Your task to perform on an android device: Open the web browser Image 0: 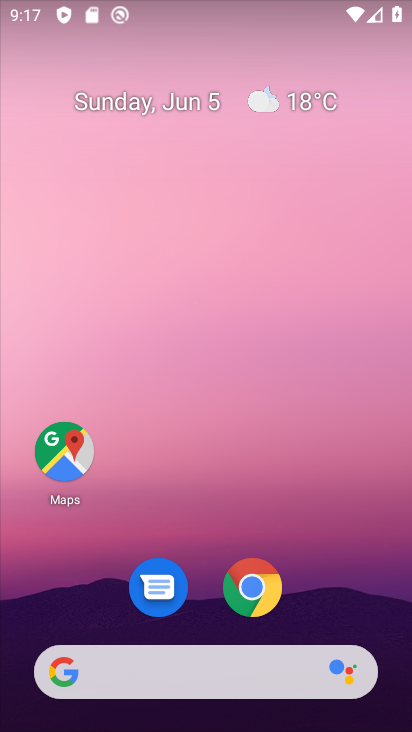
Step 0: drag from (65, 615) to (182, 104)
Your task to perform on an android device: Open the web browser Image 1: 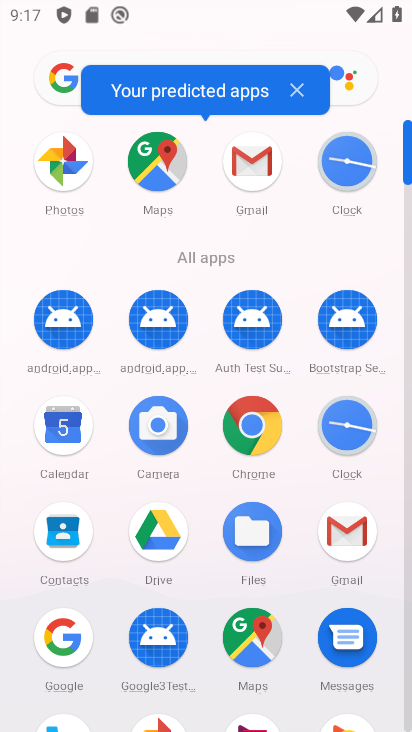
Step 1: click (56, 655)
Your task to perform on an android device: Open the web browser Image 2: 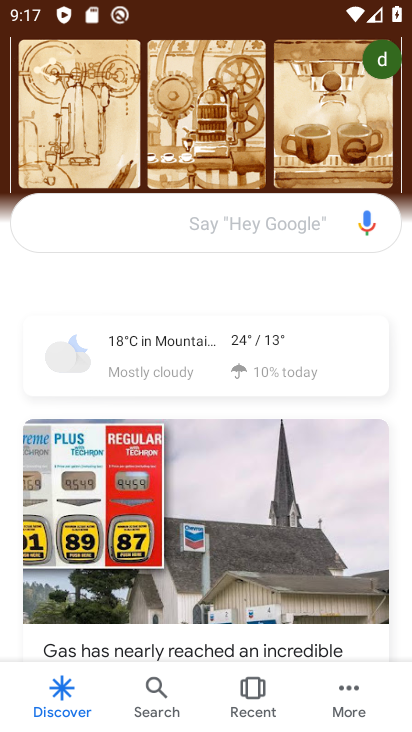
Step 2: task complete